Your task to perform on an android device: Is it going to rain today? Image 0: 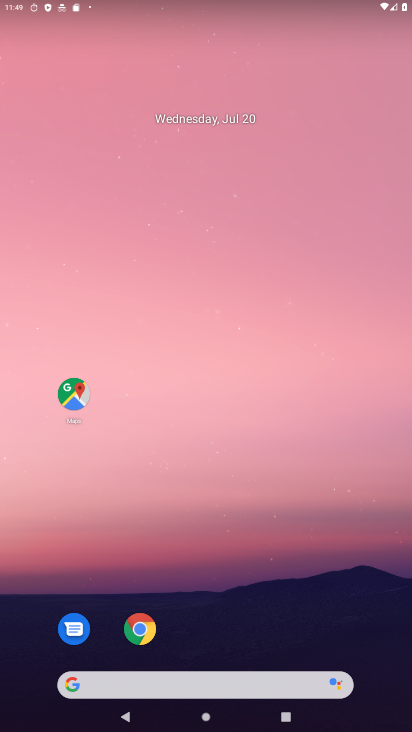
Step 0: drag from (258, 681) to (309, 22)
Your task to perform on an android device: Is it going to rain today? Image 1: 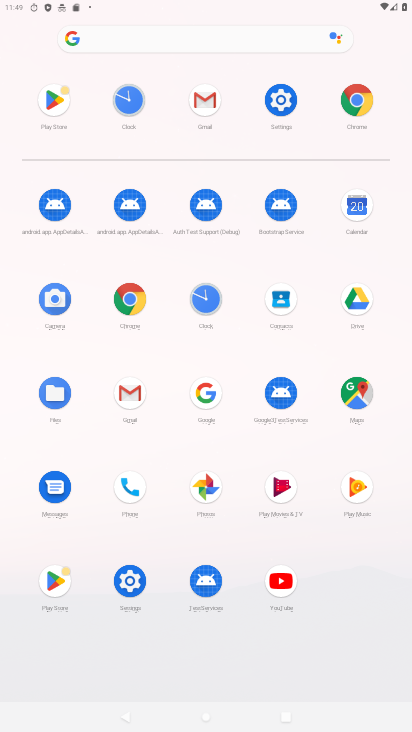
Step 1: click (131, 289)
Your task to perform on an android device: Is it going to rain today? Image 2: 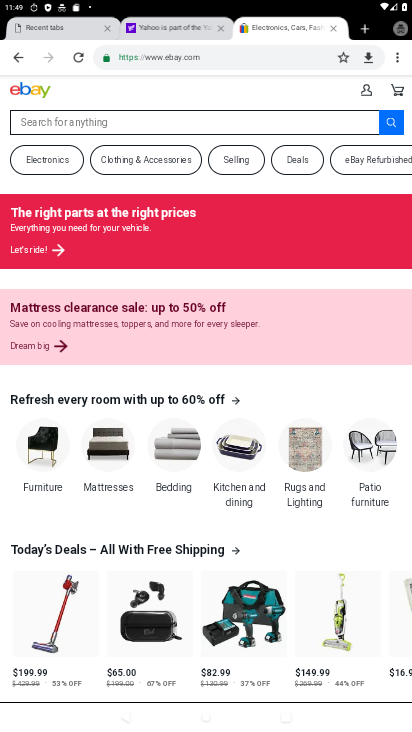
Step 2: click (276, 59)
Your task to perform on an android device: Is it going to rain today? Image 3: 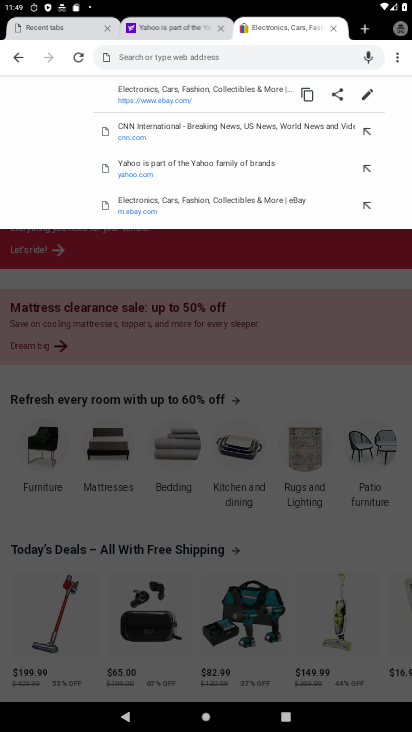
Step 3: type "going to rain today"
Your task to perform on an android device: Is it going to rain today? Image 4: 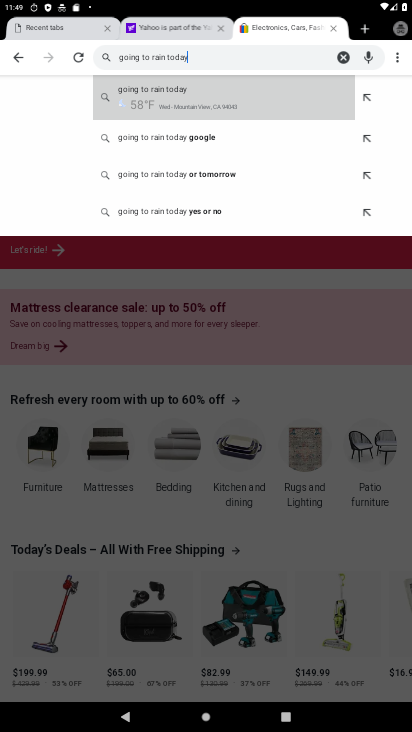
Step 4: click (319, 97)
Your task to perform on an android device: Is it going to rain today? Image 5: 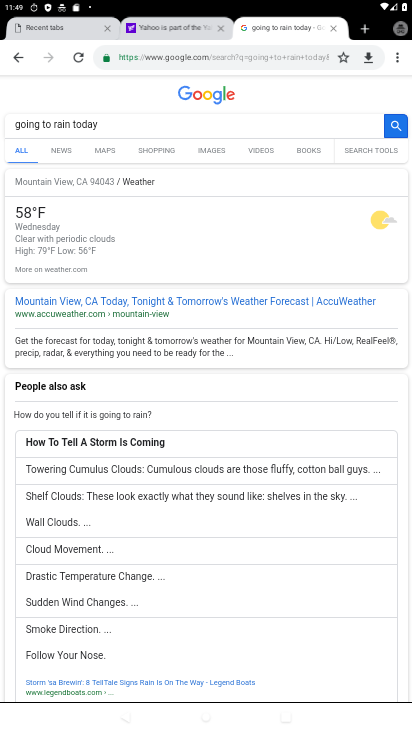
Step 5: task complete